Your task to perform on an android device: Open privacy settings Image 0: 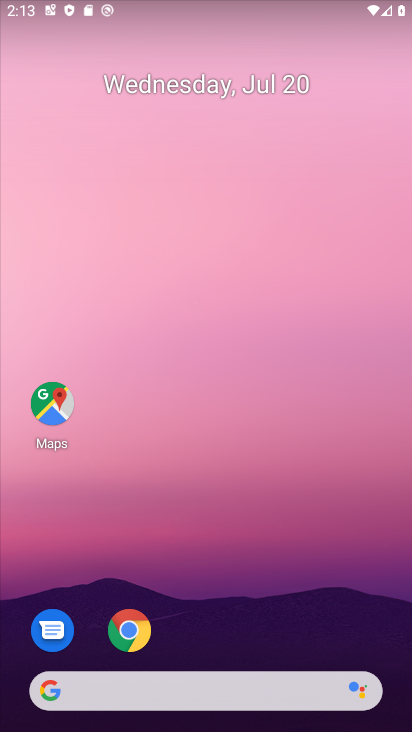
Step 0: drag from (352, 603) to (383, 123)
Your task to perform on an android device: Open privacy settings Image 1: 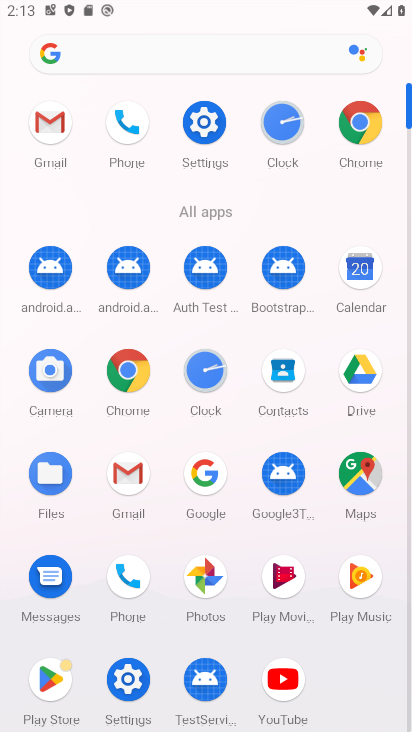
Step 1: click (217, 133)
Your task to perform on an android device: Open privacy settings Image 2: 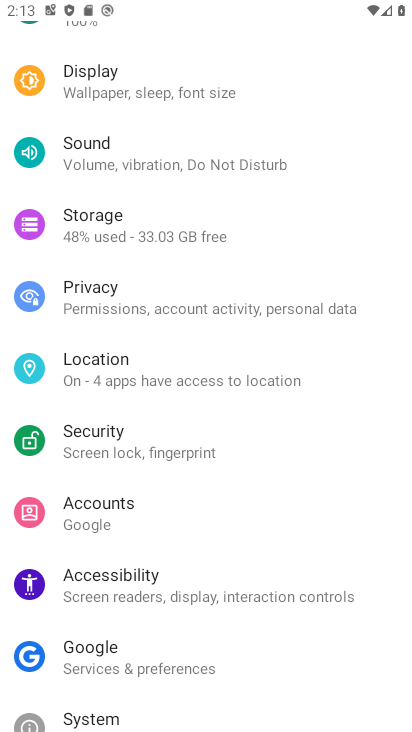
Step 2: drag from (342, 152) to (343, 237)
Your task to perform on an android device: Open privacy settings Image 3: 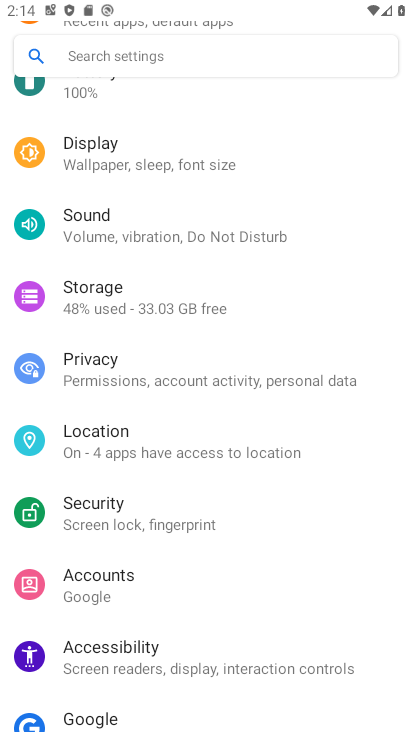
Step 3: drag from (347, 117) to (346, 213)
Your task to perform on an android device: Open privacy settings Image 4: 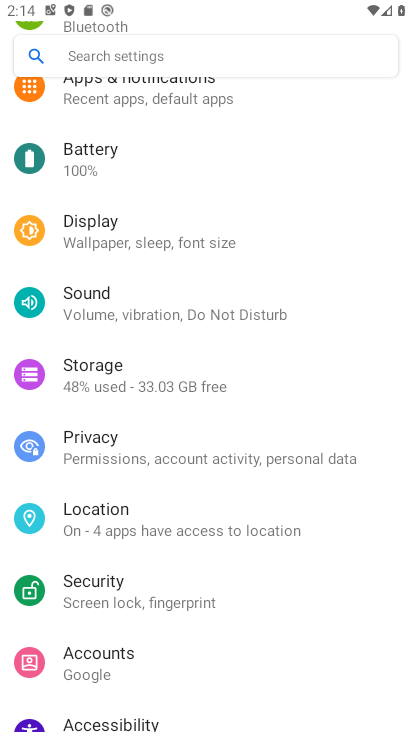
Step 4: drag from (342, 120) to (336, 219)
Your task to perform on an android device: Open privacy settings Image 5: 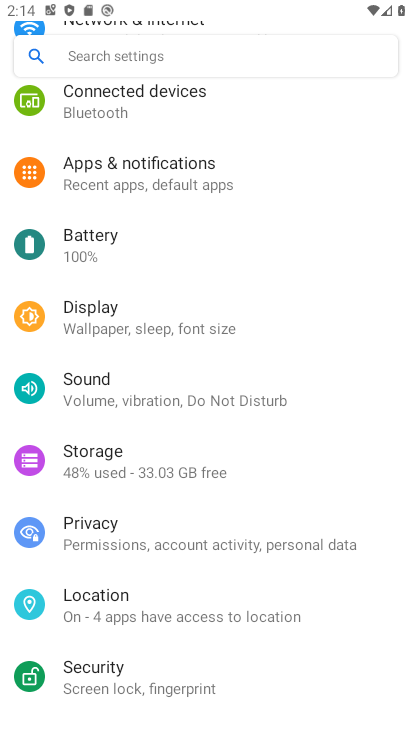
Step 5: drag from (341, 145) to (325, 318)
Your task to perform on an android device: Open privacy settings Image 6: 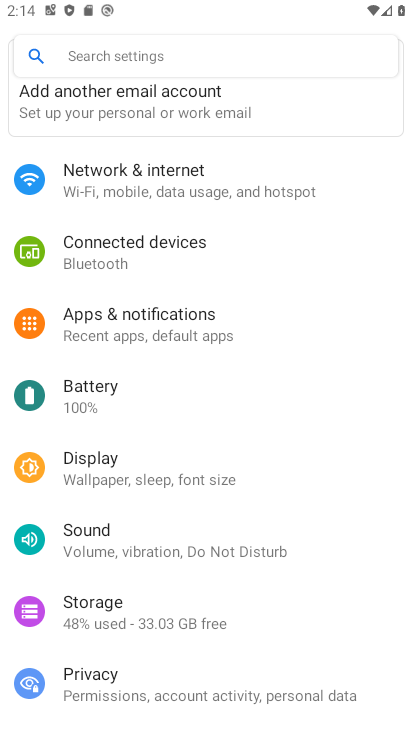
Step 6: drag from (316, 364) to (318, 265)
Your task to perform on an android device: Open privacy settings Image 7: 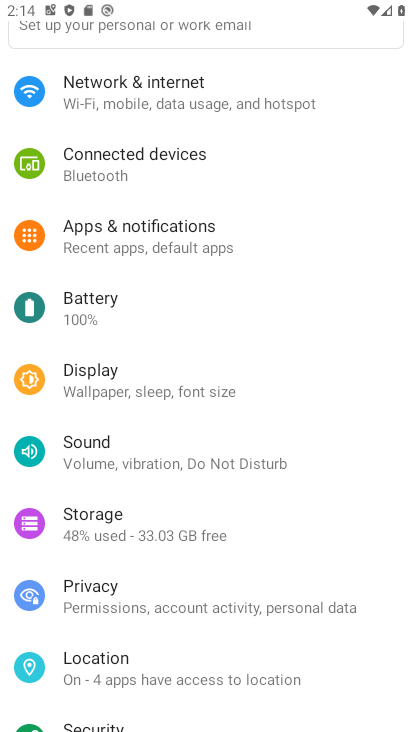
Step 7: drag from (318, 370) to (325, 255)
Your task to perform on an android device: Open privacy settings Image 8: 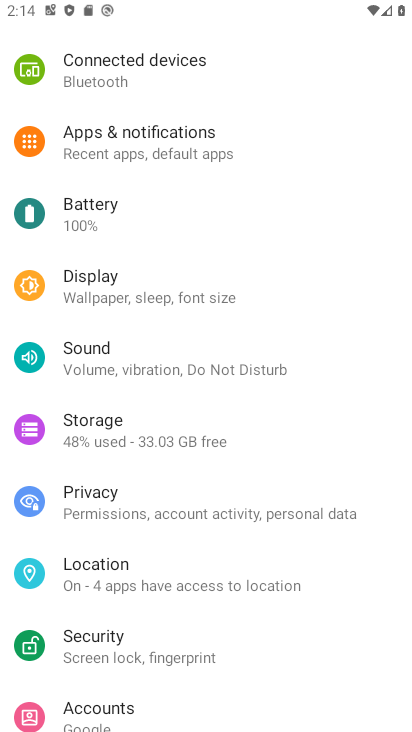
Step 8: drag from (315, 396) to (327, 303)
Your task to perform on an android device: Open privacy settings Image 9: 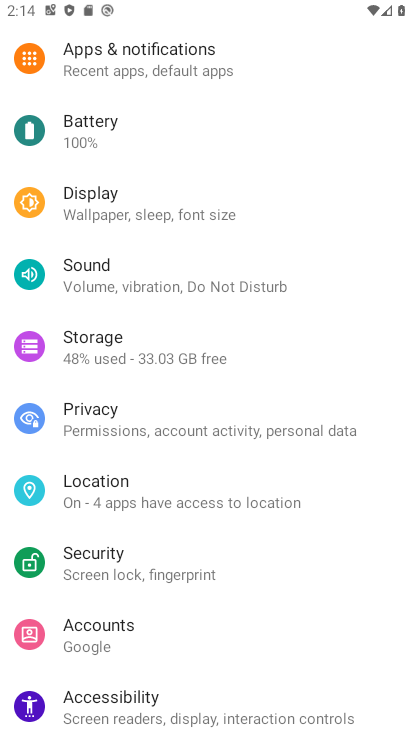
Step 9: drag from (347, 459) to (357, 329)
Your task to perform on an android device: Open privacy settings Image 10: 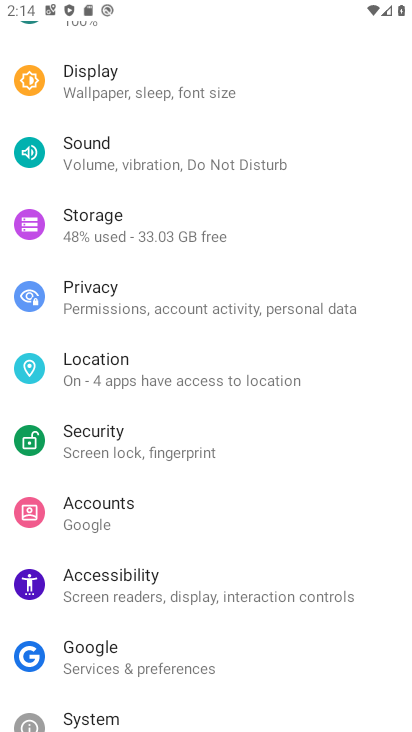
Step 10: click (337, 312)
Your task to perform on an android device: Open privacy settings Image 11: 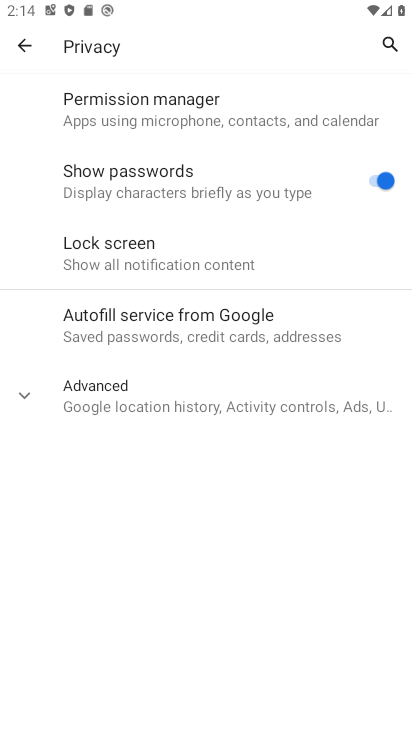
Step 11: click (328, 393)
Your task to perform on an android device: Open privacy settings Image 12: 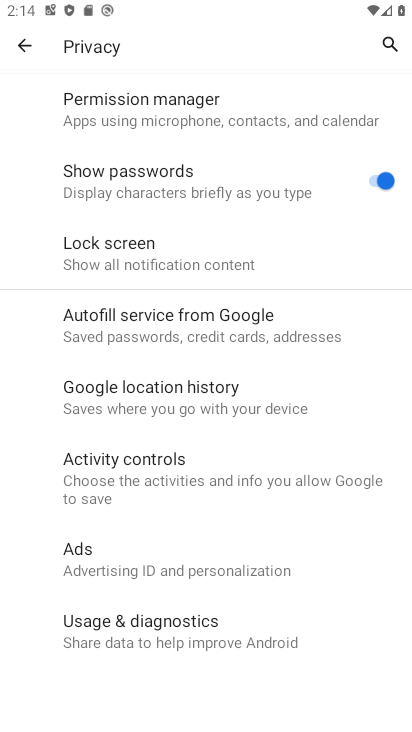
Step 12: task complete